Your task to perform on an android device: turn on javascript in the chrome app Image 0: 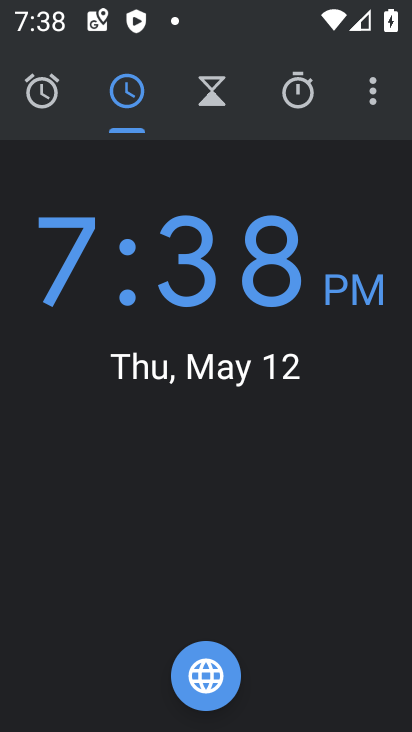
Step 0: press home button
Your task to perform on an android device: turn on javascript in the chrome app Image 1: 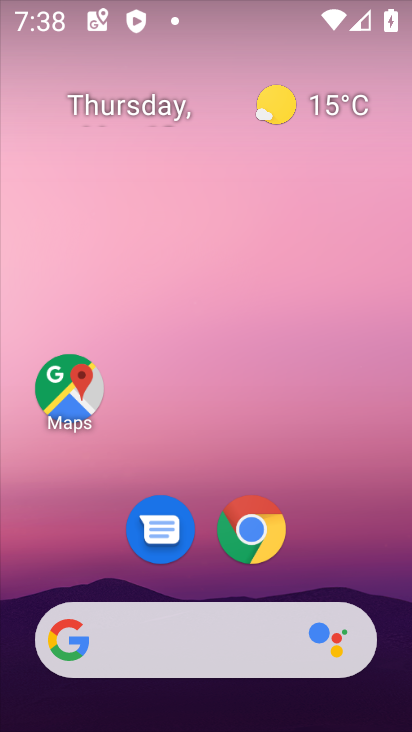
Step 1: click (268, 522)
Your task to perform on an android device: turn on javascript in the chrome app Image 2: 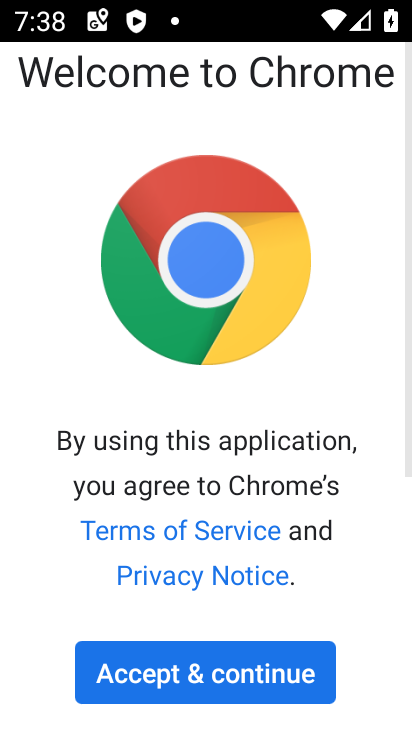
Step 2: click (225, 679)
Your task to perform on an android device: turn on javascript in the chrome app Image 3: 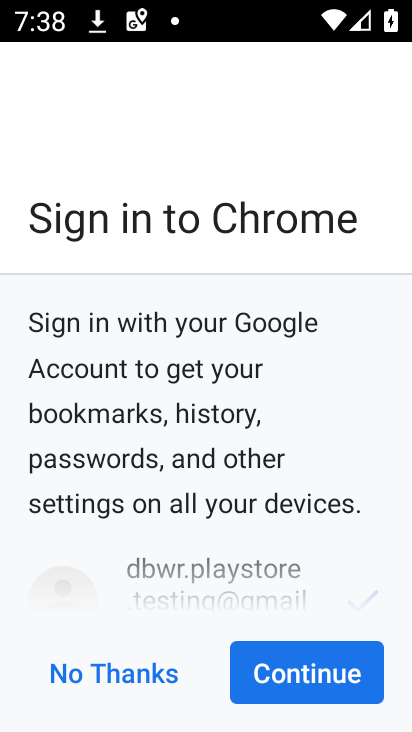
Step 3: click (278, 665)
Your task to perform on an android device: turn on javascript in the chrome app Image 4: 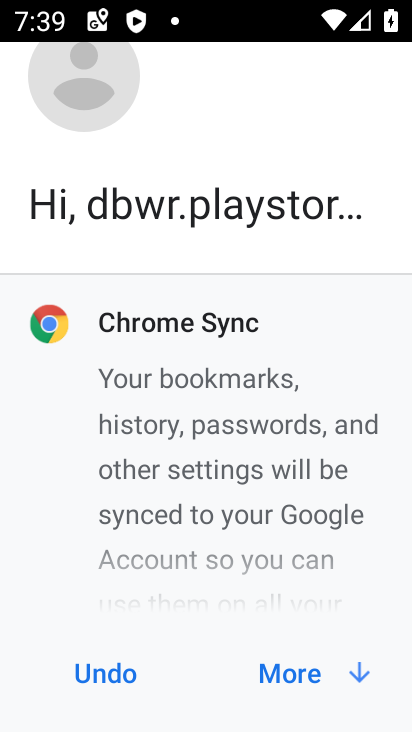
Step 4: click (280, 668)
Your task to perform on an android device: turn on javascript in the chrome app Image 5: 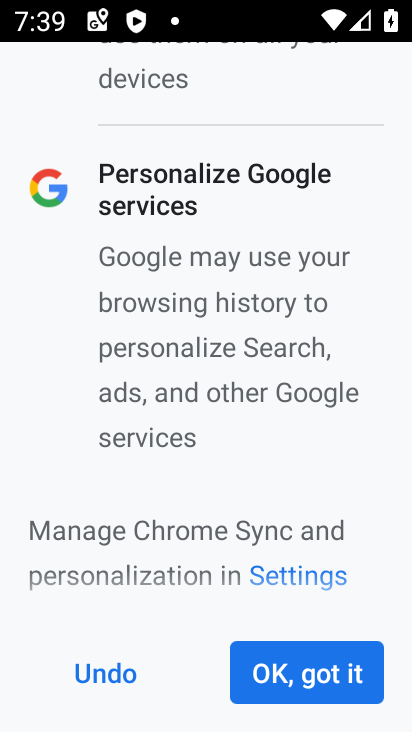
Step 5: click (280, 668)
Your task to perform on an android device: turn on javascript in the chrome app Image 6: 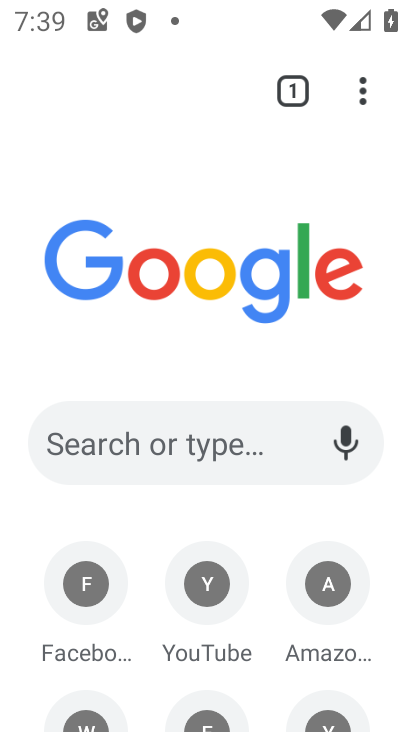
Step 6: click (359, 72)
Your task to perform on an android device: turn on javascript in the chrome app Image 7: 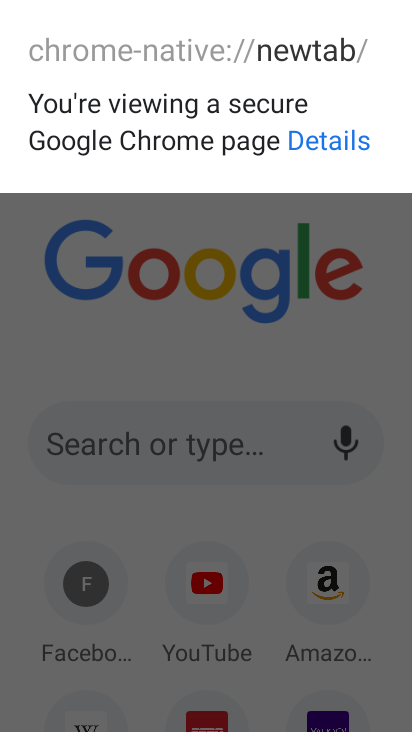
Step 7: click (370, 275)
Your task to perform on an android device: turn on javascript in the chrome app Image 8: 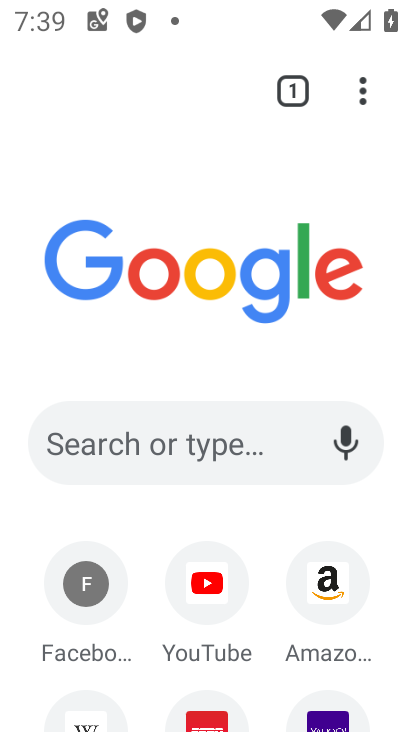
Step 8: click (362, 95)
Your task to perform on an android device: turn on javascript in the chrome app Image 9: 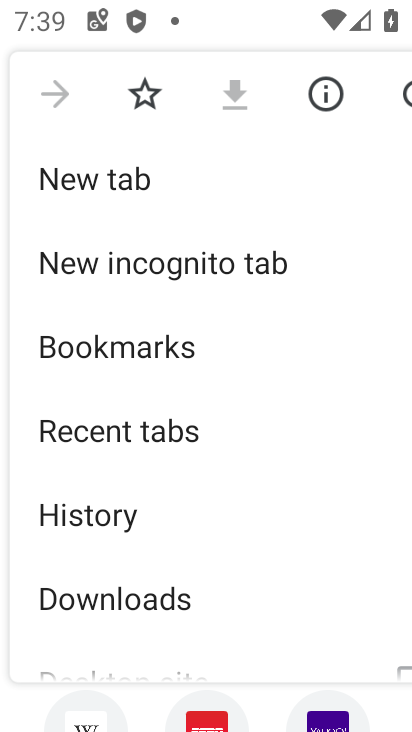
Step 9: drag from (101, 673) to (5, 44)
Your task to perform on an android device: turn on javascript in the chrome app Image 10: 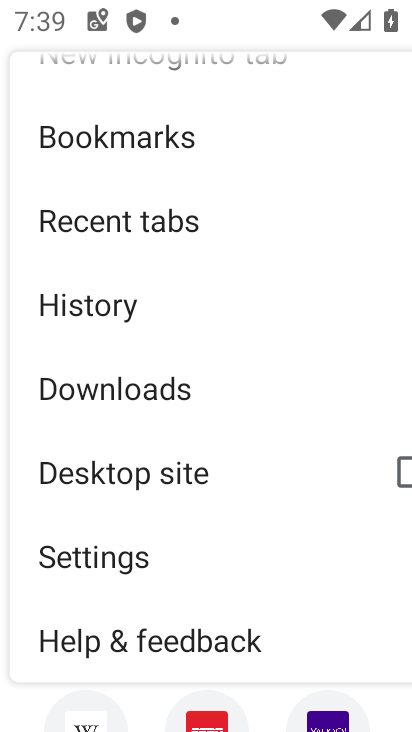
Step 10: click (71, 561)
Your task to perform on an android device: turn on javascript in the chrome app Image 11: 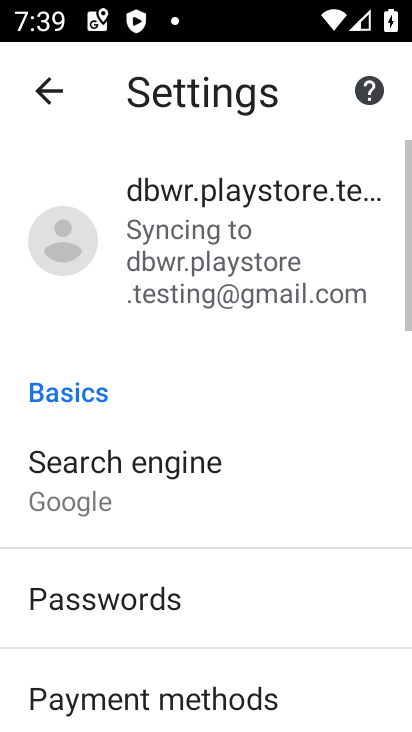
Step 11: drag from (293, 654) to (218, 84)
Your task to perform on an android device: turn on javascript in the chrome app Image 12: 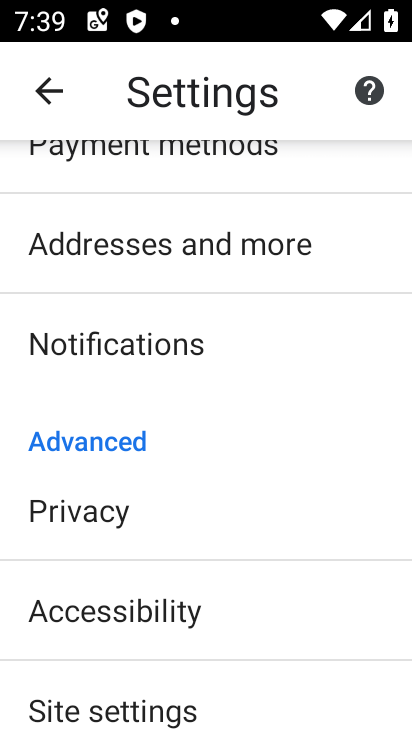
Step 12: click (56, 712)
Your task to perform on an android device: turn on javascript in the chrome app Image 13: 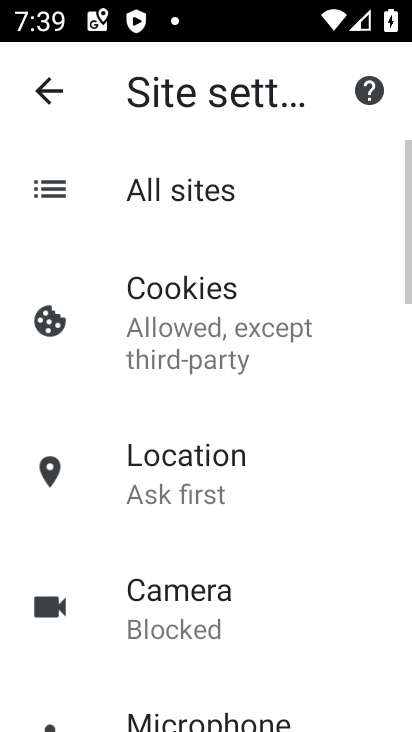
Step 13: drag from (320, 716) to (286, 141)
Your task to perform on an android device: turn on javascript in the chrome app Image 14: 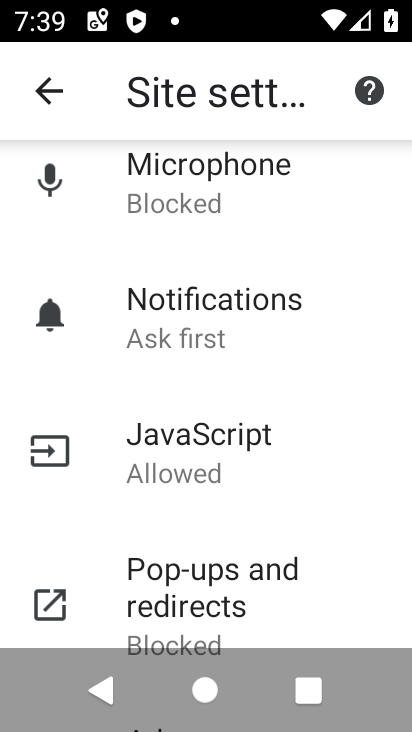
Step 14: drag from (210, 585) to (223, 191)
Your task to perform on an android device: turn on javascript in the chrome app Image 15: 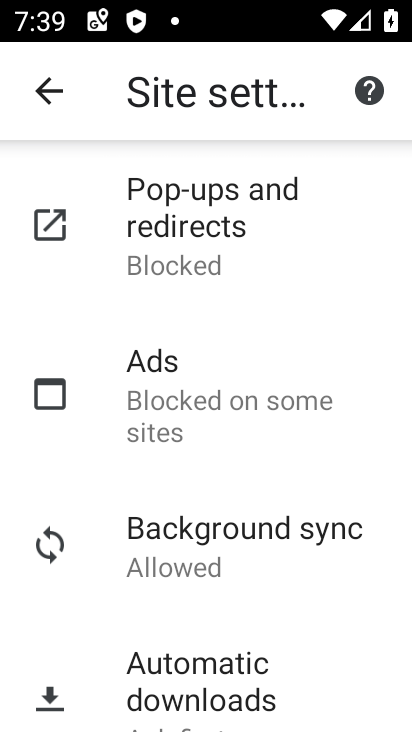
Step 15: drag from (295, 280) to (315, 673)
Your task to perform on an android device: turn on javascript in the chrome app Image 16: 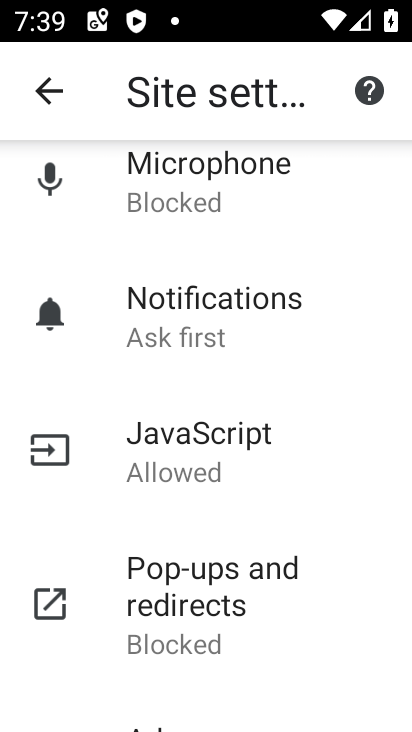
Step 16: click (205, 461)
Your task to perform on an android device: turn on javascript in the chrome app Image 17: 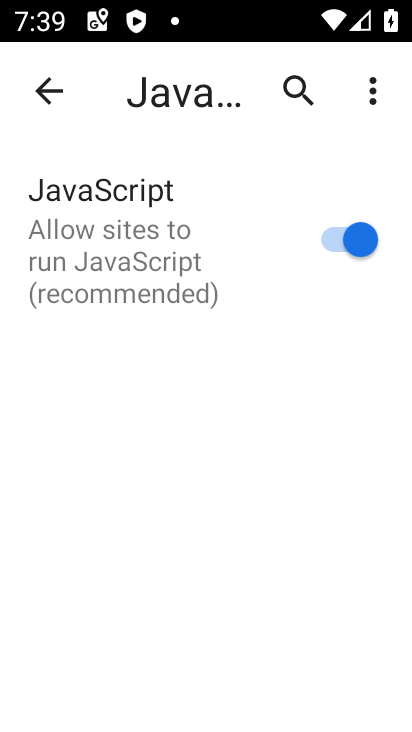
Step 17: task complete